Your task to perform on an android device: open chrome and create a bookmark for the current page Image 0: 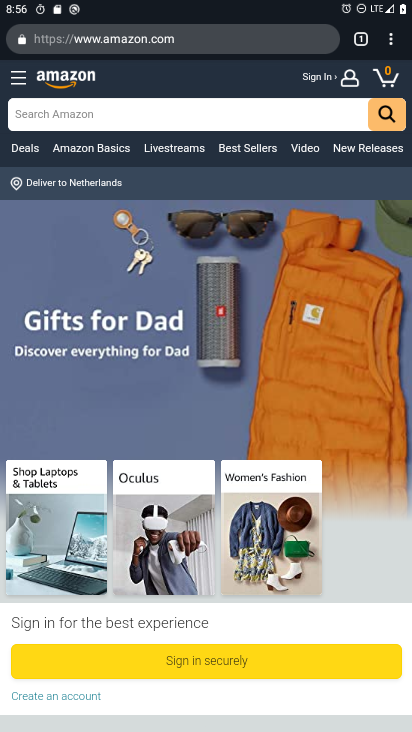
Step 0: press home button
Your task to perform on an android device: open chrome and create a bookmark for the current page Image 1: 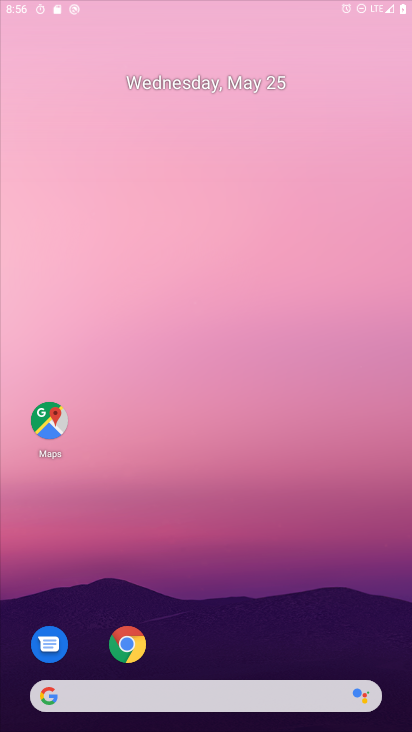
Step 1: drag from (395, 663) to (308, 62)
Your task to perform on an android device: open chrome and create a bookmark for the current page Image 2: 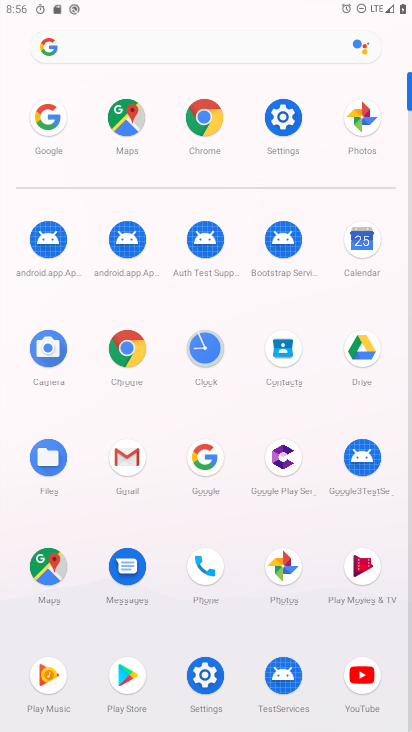
Step 2: click (127, 338)
Your task to perform on an android device: open chrome and create a bookmark for the current page Image 3: 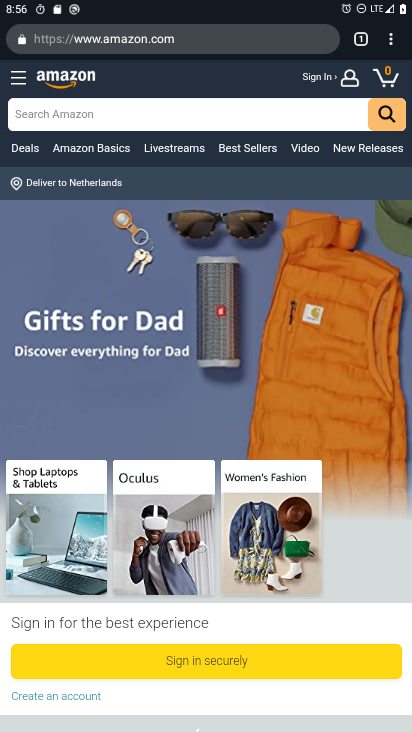
Step 3: click (391, 36)
Your task to perform on an android device: open chrome and create a bookmark for the current page Image 4: 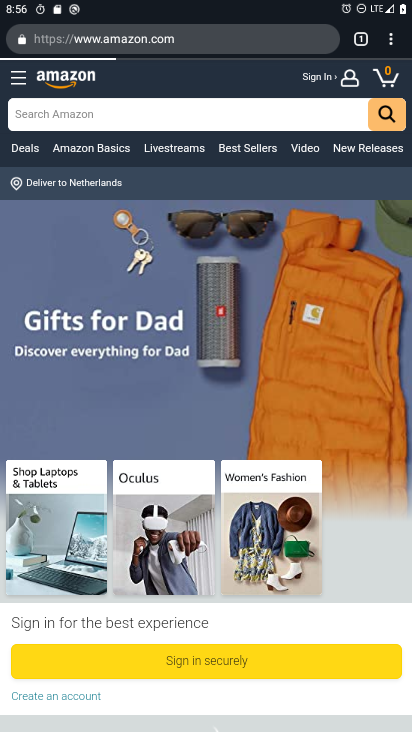
Step 4: click (391, 36)
Your task to perform on an android device: open chrome and create a bookmark for the current page Image 5: 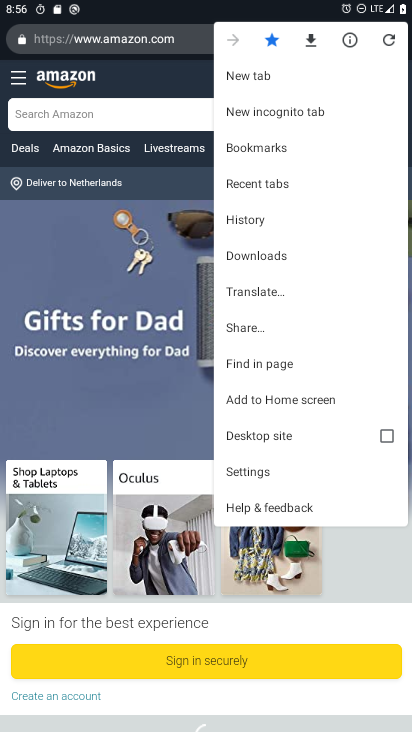
Step 5: task complete